Your task to perform on an android device: see sites visited before in the chrome app Image 0: 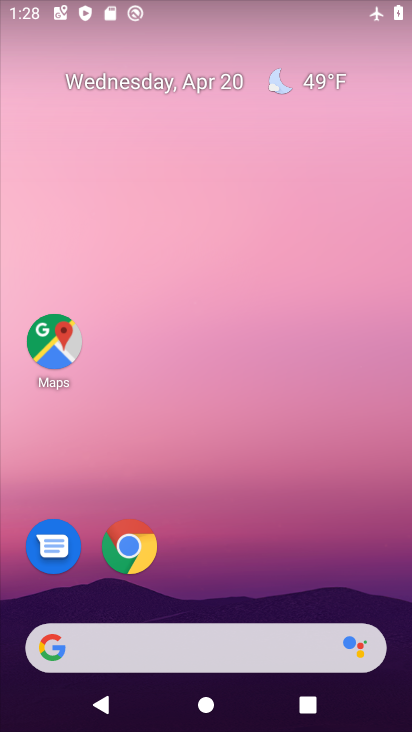
Step 0: click (301, 244)
Your task to perform on an android device: see sites visited before in the chrome app Image 1: 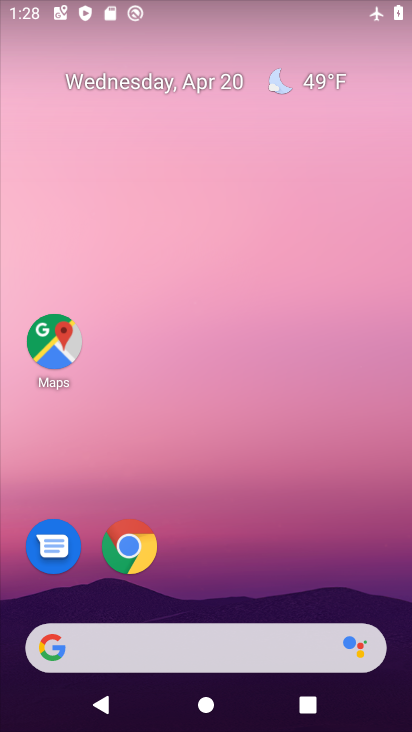
Step 1: drag from (243, 596) to (232, 309)
Your task to perform on an android device: see sites visited before in the chrome app Image 2: 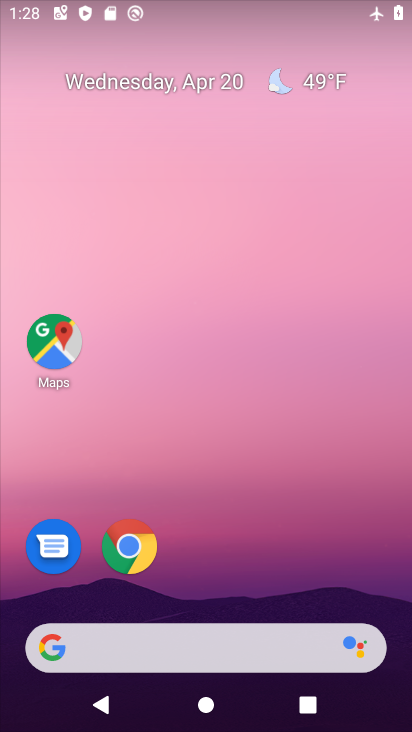
Step 2: drag from (262, 546) to (252, 228)
Your task to perform on an android device: see sites visited before in the chrome app Image 3: 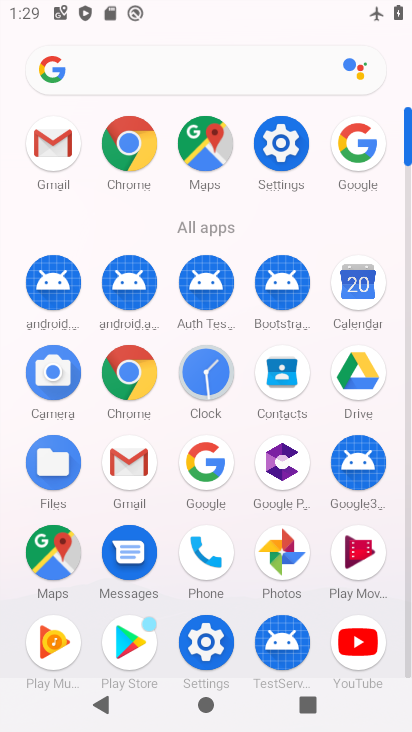
Step 3: click (135, 133)
Your task to perform on an android device: see sites visited before in the chrome app Image 4: 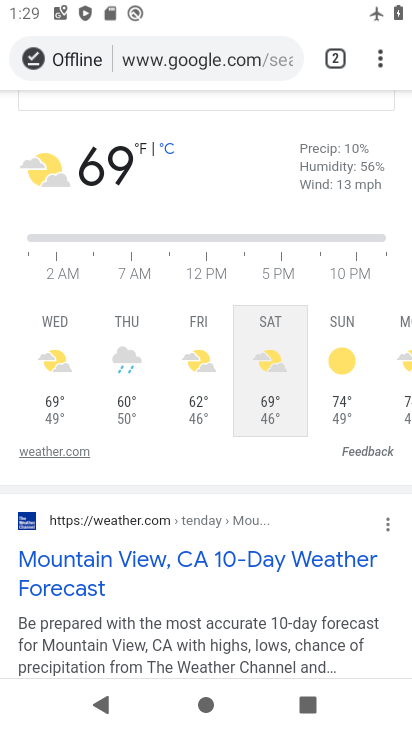
Step 4: click (380, 49)
Your task to perform on an android device: see sites visited before in the chrome app Image 5: 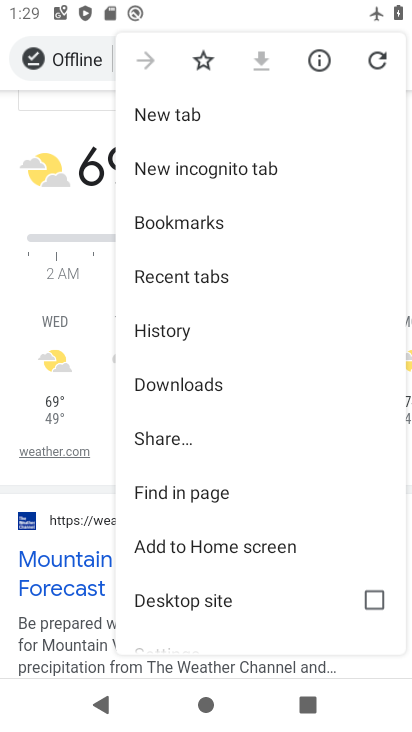
Step 5: drag from (270, 550) to (312, 223)
Your task to perform on an android device: see sites visited before in the chrome app Image 6: 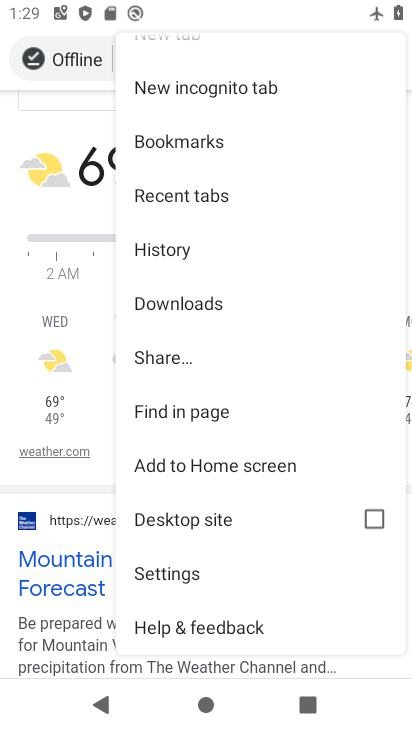
Step 6: click (207, 247)
Your task to perform on an android device: see sites visited before in the chrome app Image 7: 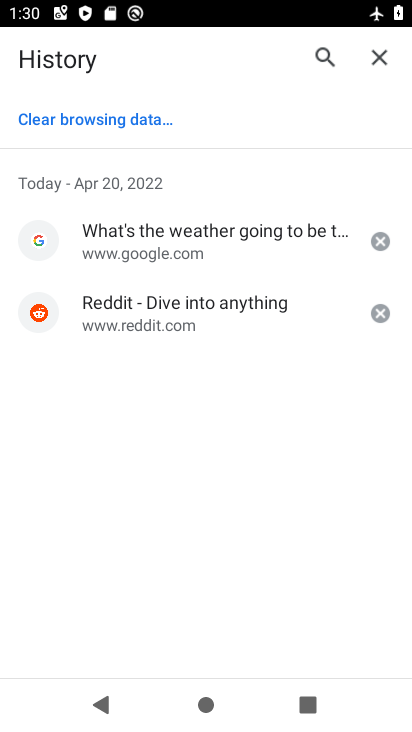
Step 7: task complete